Your task to perform on an android device: Open Youtube and go to the subscriptions tab Image 0: 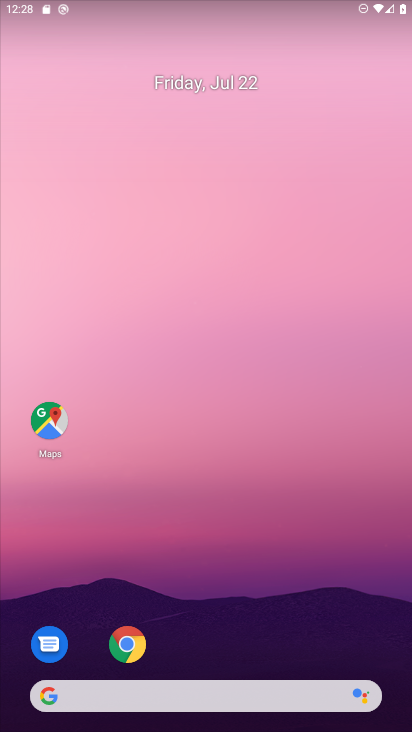
Step 0: drag from (203, 615) to (244, 30)
Your task to perform on an android device: Open Youtube and go to the subscriptions tab Image 1: 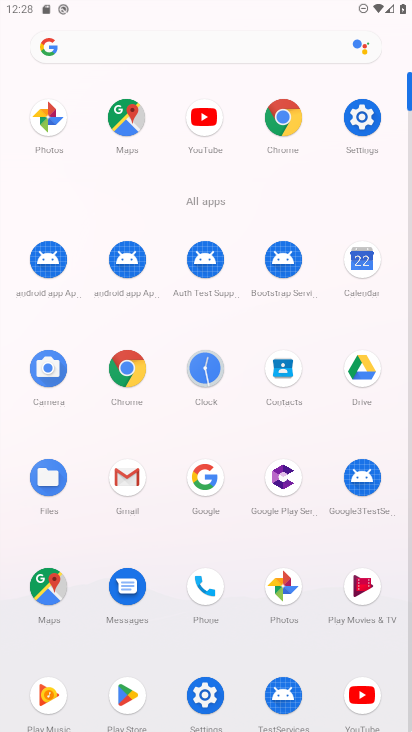
Step 1: click (205, 142)
Your task to perform on an android device: Open Youtube and go to the subscriptions tab Image 2: 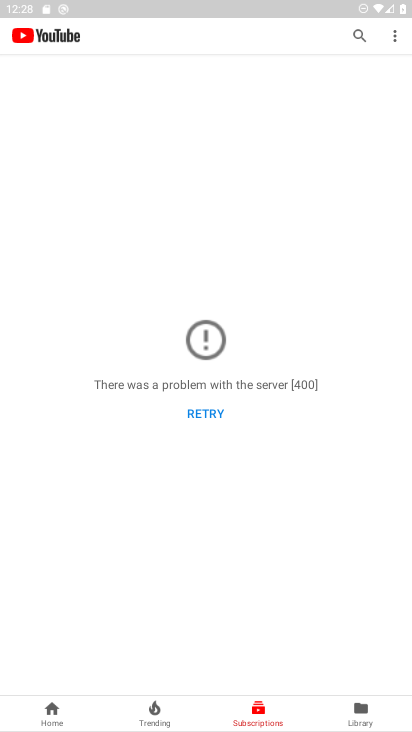
Step 2: task complete